Your task to perform on an android device: open chrome privacy settings Image 0: 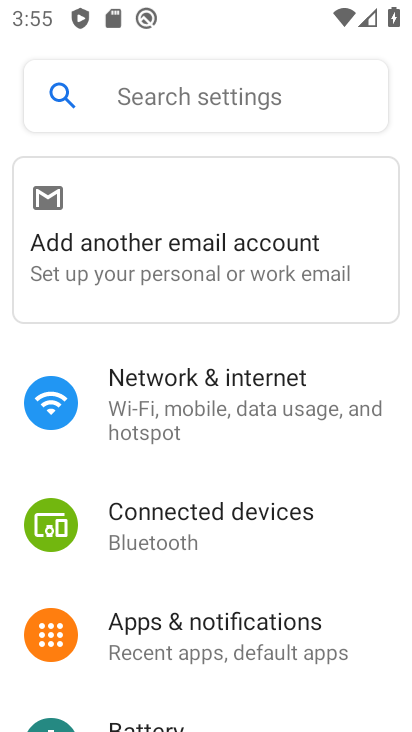
Step 0: press back button
Your task to perform on an android device: open chrome privacy settings Image 1: 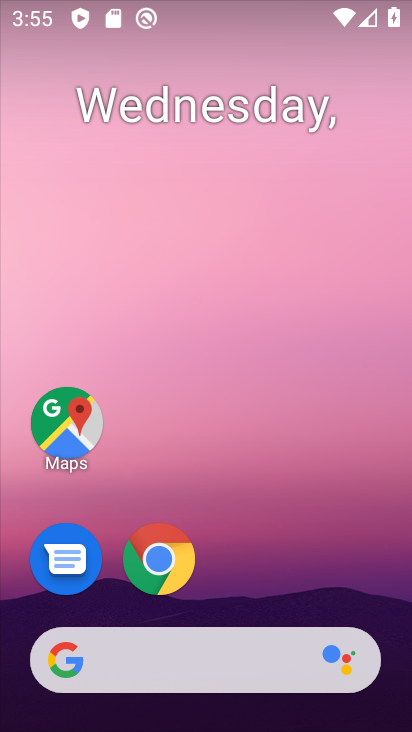
Step 1: click (156, 557)
Your task to perform on an android device: open chrome privacy settings Image 2: 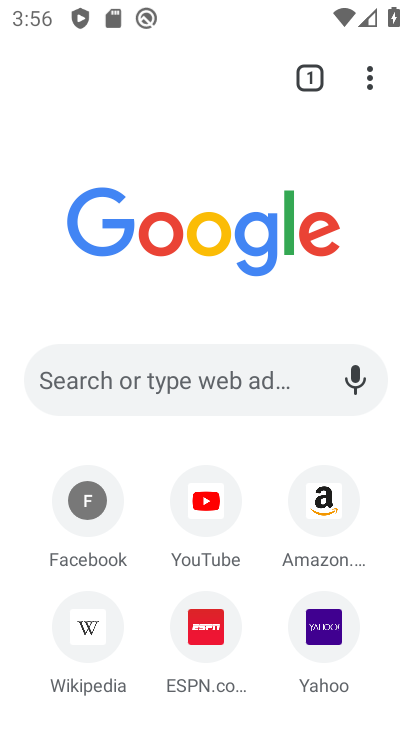
Step 2: drag from (366, 76) to (113, 616)
Your task to perform on an android device: open chrome privacy settings Image 3: 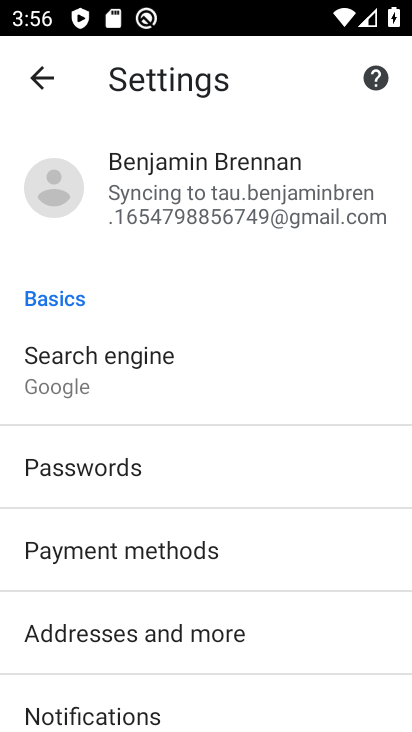
Step 3: drag from (199, 597) to (298, 85)
Your task to perform on an android device: open chrome privacy settings Image 4: 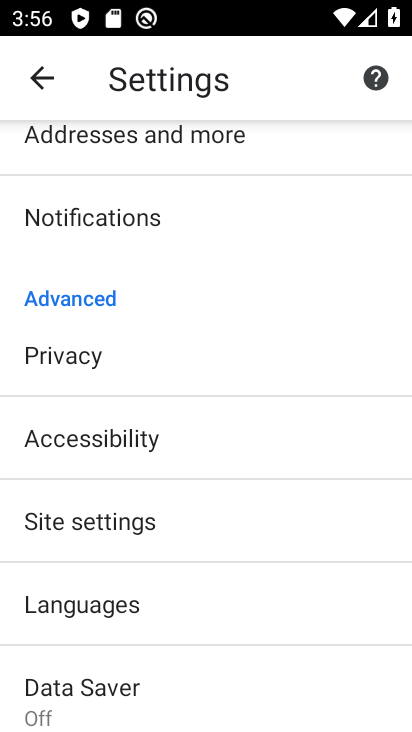
Step 4: click (64, 366)
Your task to perform on an android device: open chrome privacy settings Image 5: 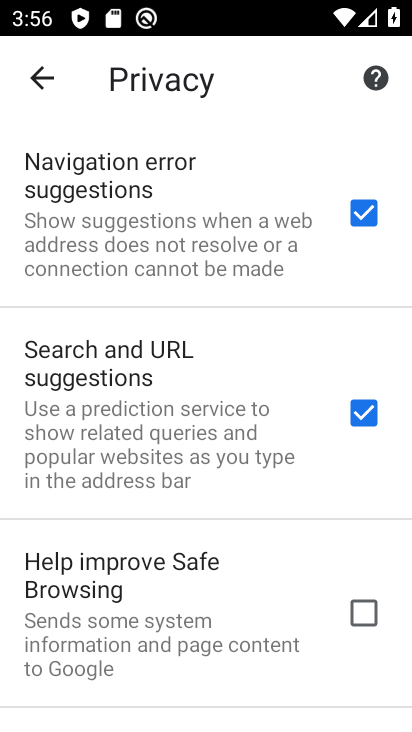
Step 5: task complete